Your task to perform on an android device: toggle translation in the chrome app Image 0: 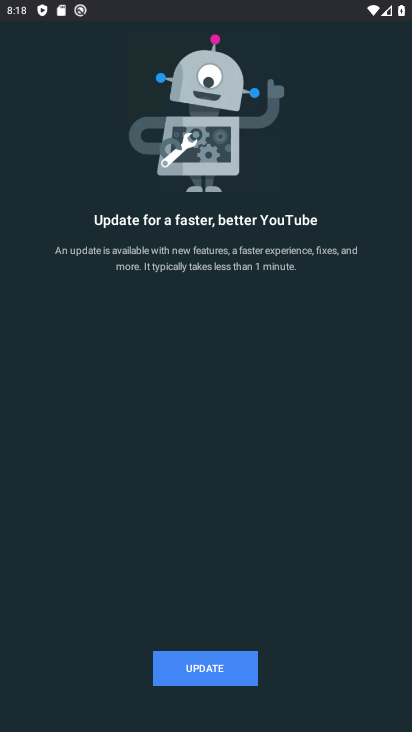
Step 0: press home button
Your task to perform on an android device: toggle translation in the chrome app Image 1: 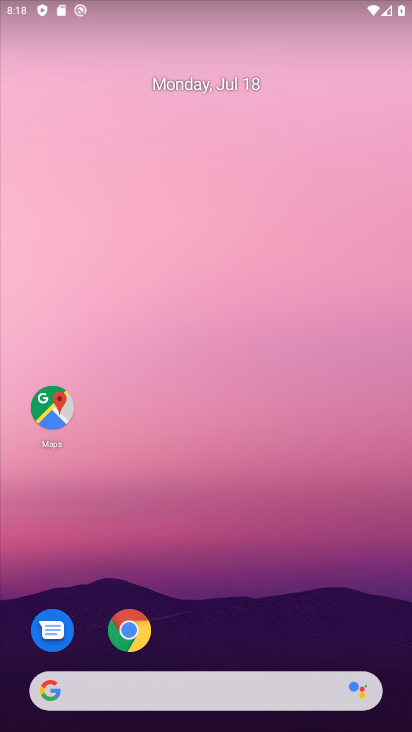
Step 1: drag from (252, 637) to (235, 172)
Your task to perform on an android device: toggle translation in the chrome app Image 2: 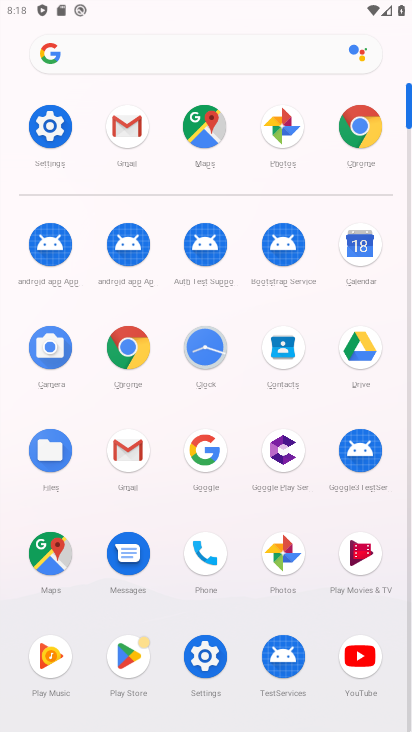
Step 2: click (374, 119)
Your task to perform on an android device: toggle translation in the chrome app Image 3: 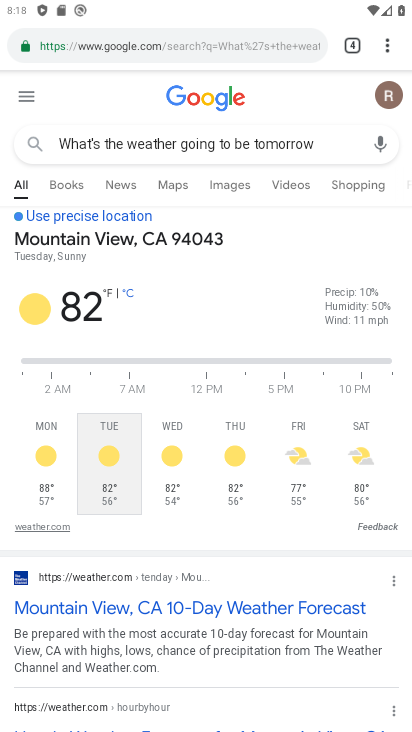
Step 3: click (392, 46)
Your task to perform on an android device: toggle translation in the chrome app Image 4: 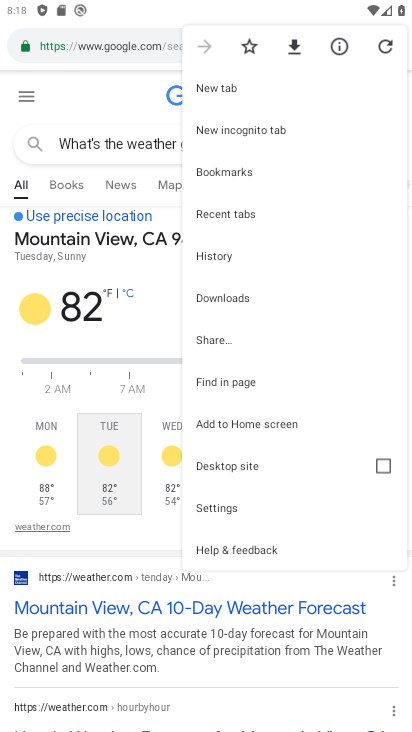
Step 4: click (255, 509)
Your task to perform on an android device: toggle translation in the chrome app Image 5: 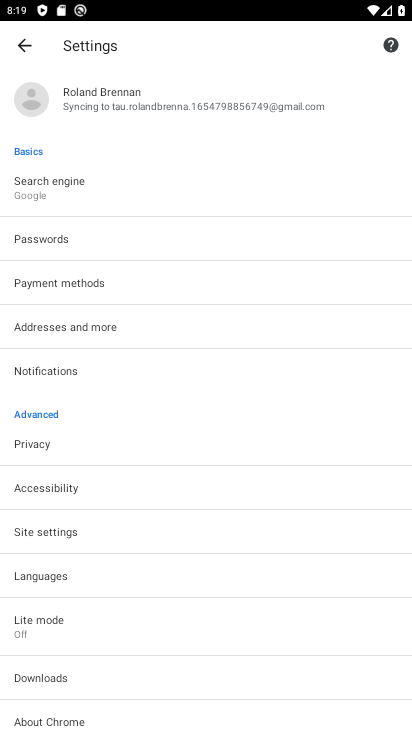
Step 5: click (124, 576)
Your task to perform on an android device: toggle translation in the chrome app Image 6: 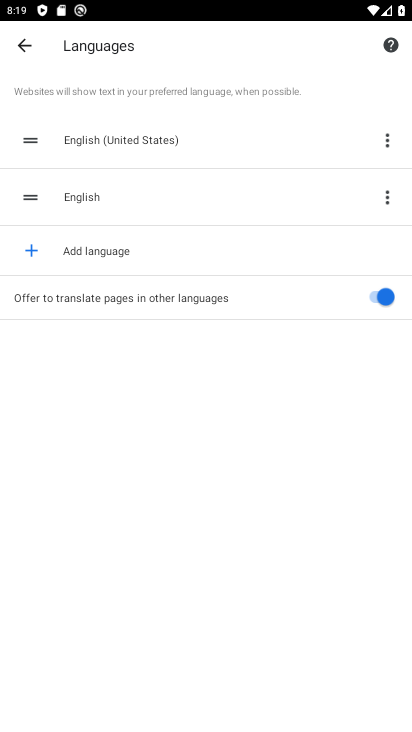
Step 6: click (384, 299)
Your task to perform on an android device: toggle translation in the chrome app Image 7: 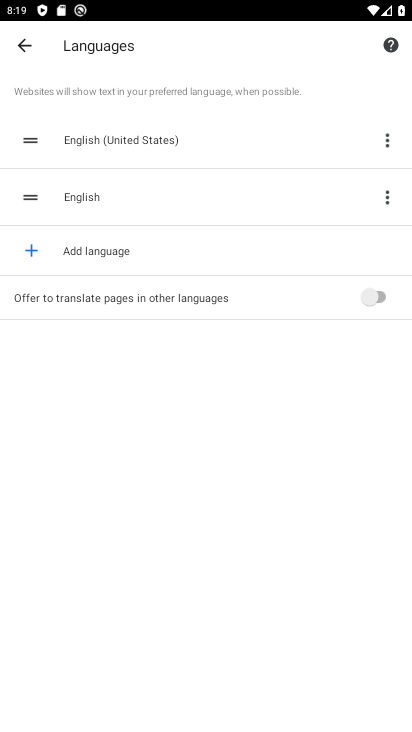
Step 7: task complete